Your task to perform on an android device: check storage Image 0: 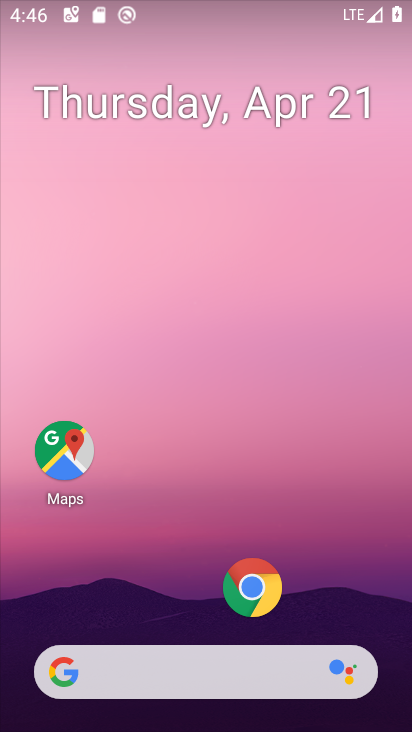
Step 0: drag from (152, 580) to (244, 68)
Your task to perform on an android device: check storage Image 1: 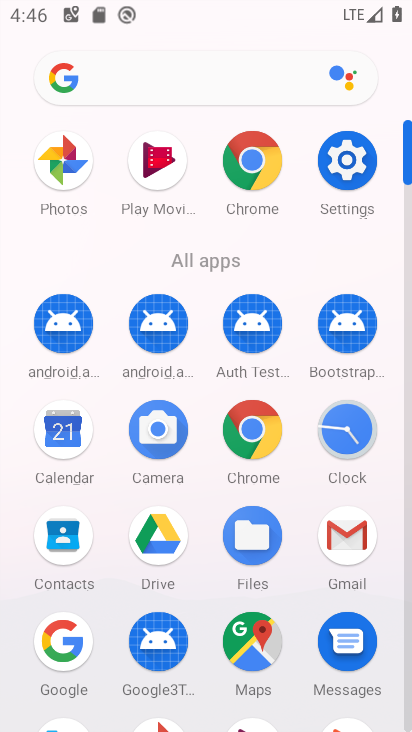
Step 1: click (342, 169)
Your task to perform on an android device: check storage Image 2: 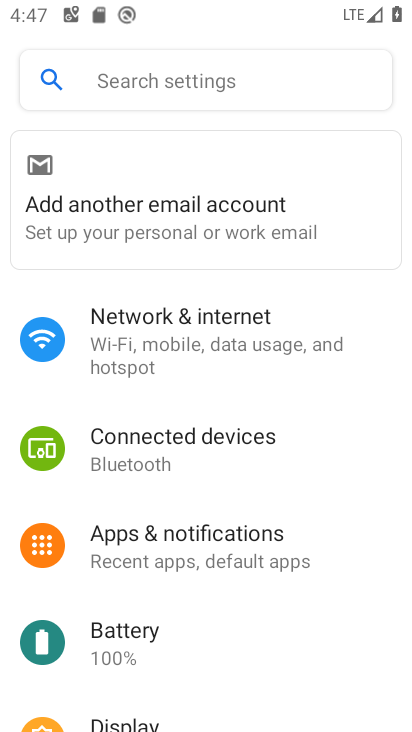
Step 2: drag from (213, 608) to (322, 291)
Your task to perform on an android device: check storage Image 3: 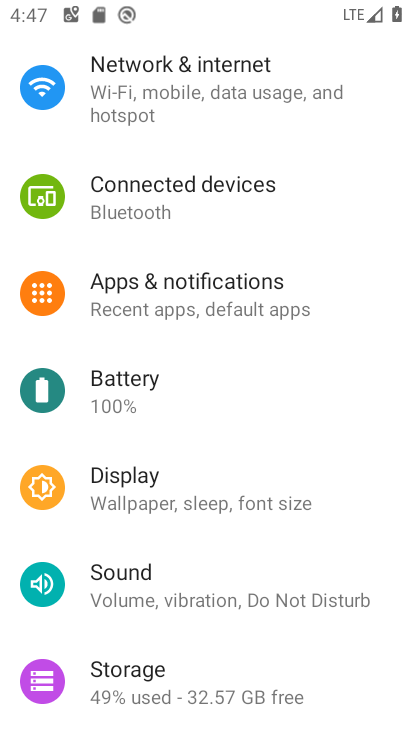
Step 3: click (143, 669)
Your task to perform on an android device: check storage Image 4: 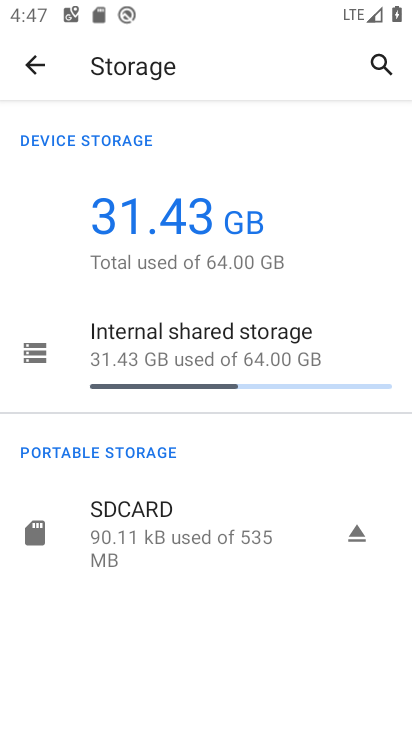
Step 4: click (284, 376)
Your task to perform on an android device: check storage Image 5: 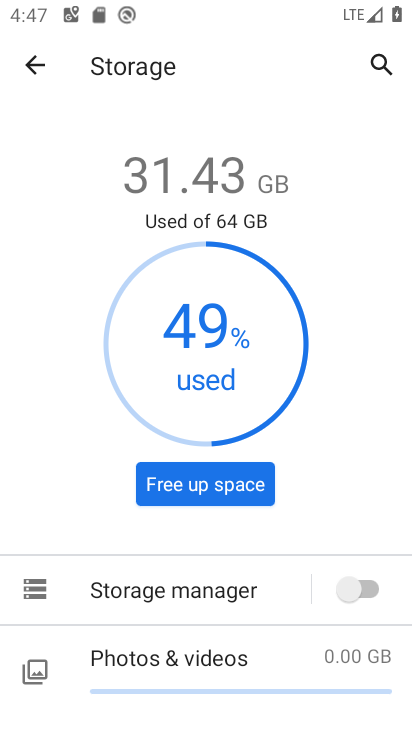
Step 5: task complete